Your task to perform on an android device: Open CNN.com Image 0: 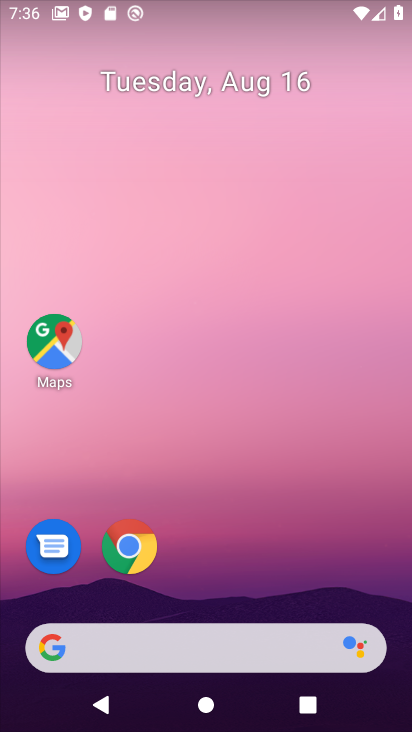
Step 0: click (125, 547)
Your task to perform on an android device: Open CNN.com Image 1: 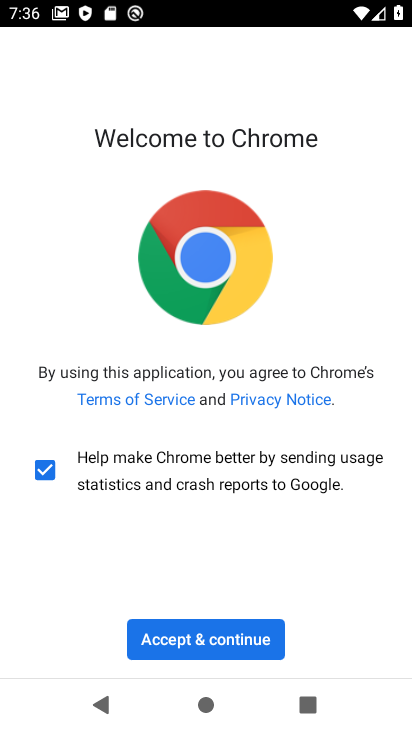
Step 1: click (205, 631)
Your task to perform on an android device: Open CNN.com Image 2: 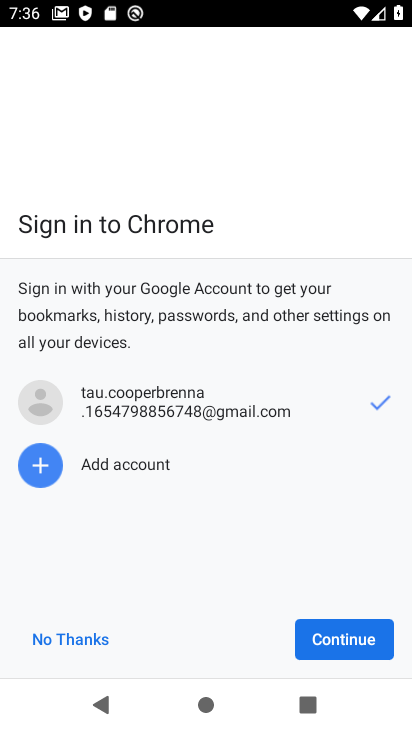
Step 2: click (341, 643)
Your task to perform on an android device: Open CNN.com Image 3: 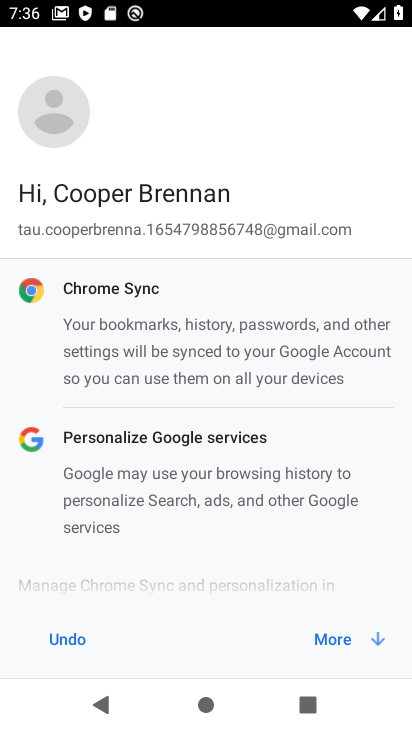
Step 3: click (341, 643)
Your task to perform on an android device: Open CNN.com Image 4: 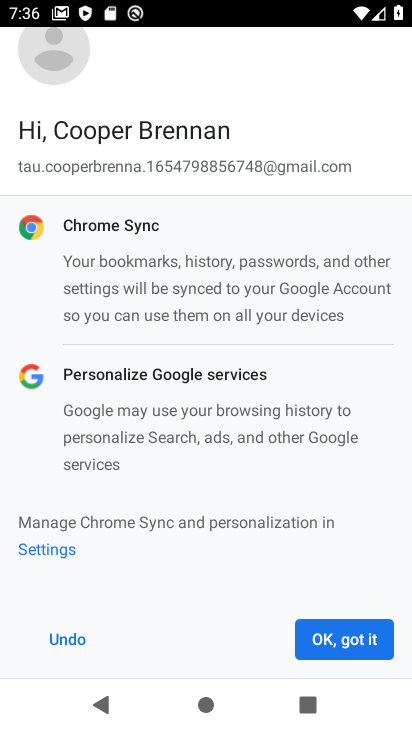
Step 4: click (341, 643)
Your task to perform on an android device: Open CNN.com Image 5: 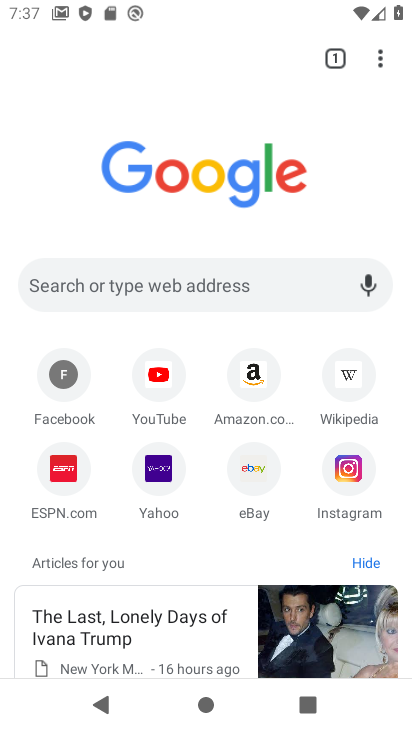
Step 5: click (192, 282)
Your task to perform on an android device: Open CNN.com Image 6: 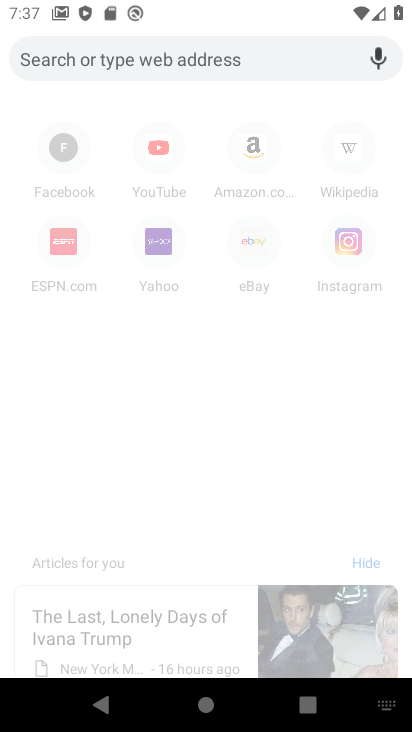
Step 6: type "www.cnn.com"
Your task to perform on an android device: Open CNN.com Image 7: 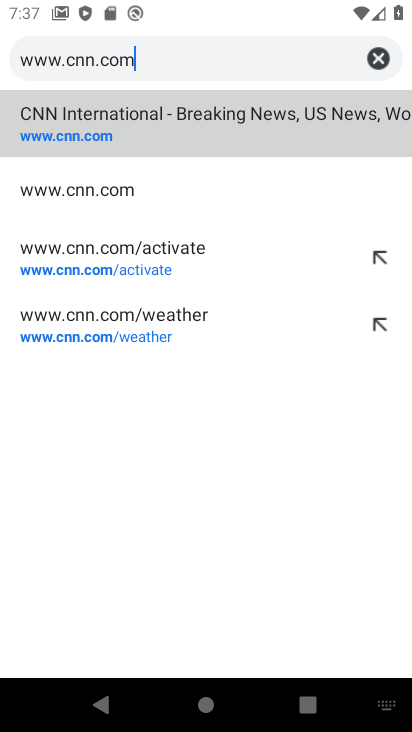
Step 7: click (101, 135)
Your task to perform on an android device: Open CNN.com Image 8: 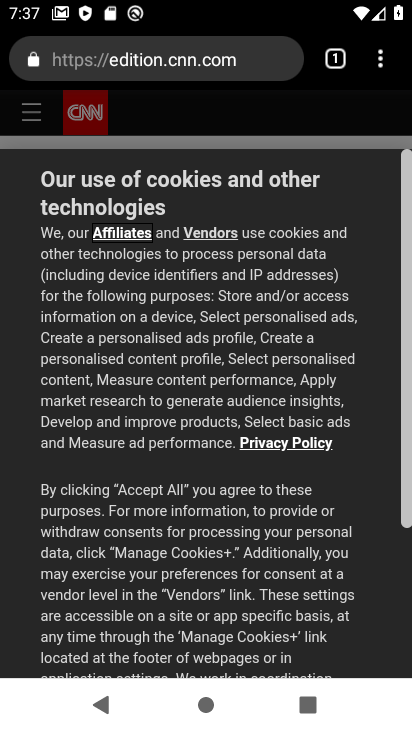
Step 8: task complete